Your task to perform on an android device: see tabs open on other devices in the chrome app Image 0: 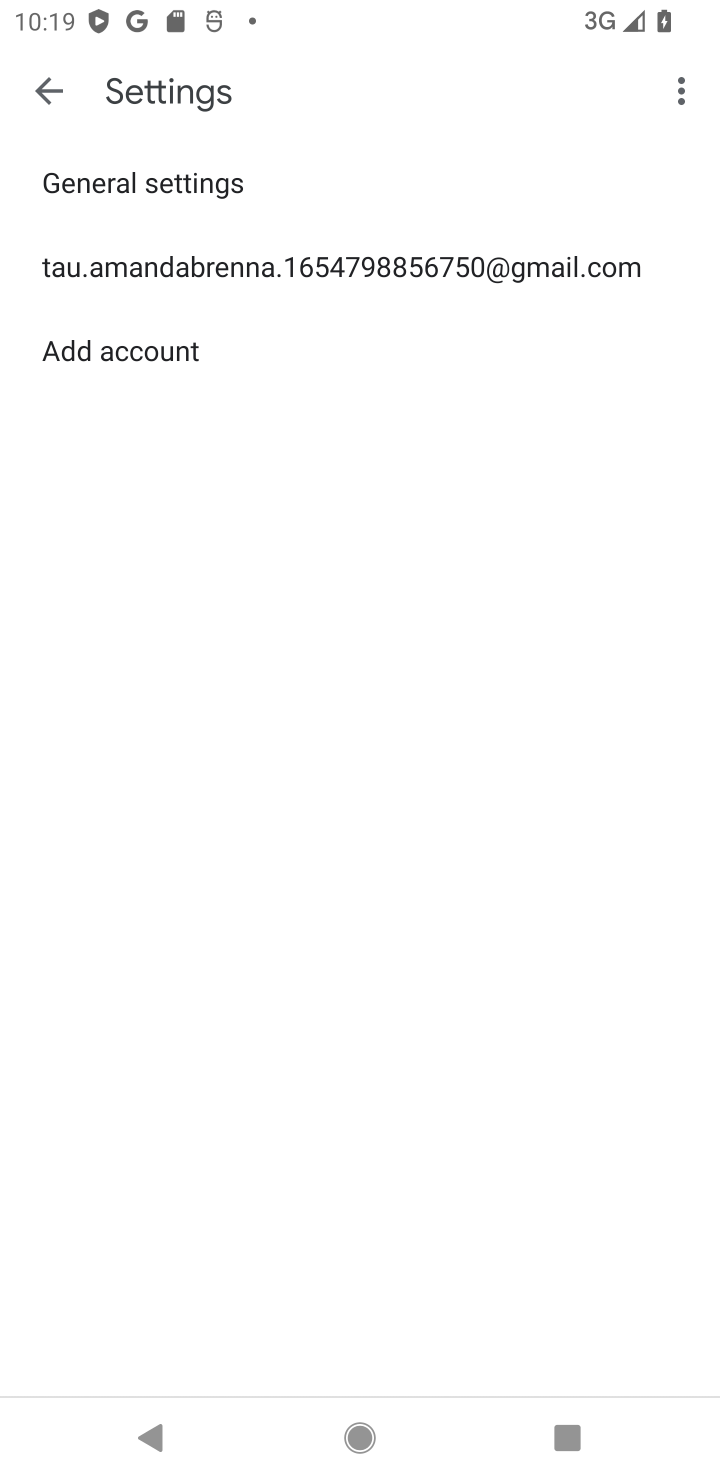
Step 0: press home button
Your task to perform on an android device: see tabs open on other devices in the chrome app Image 1: 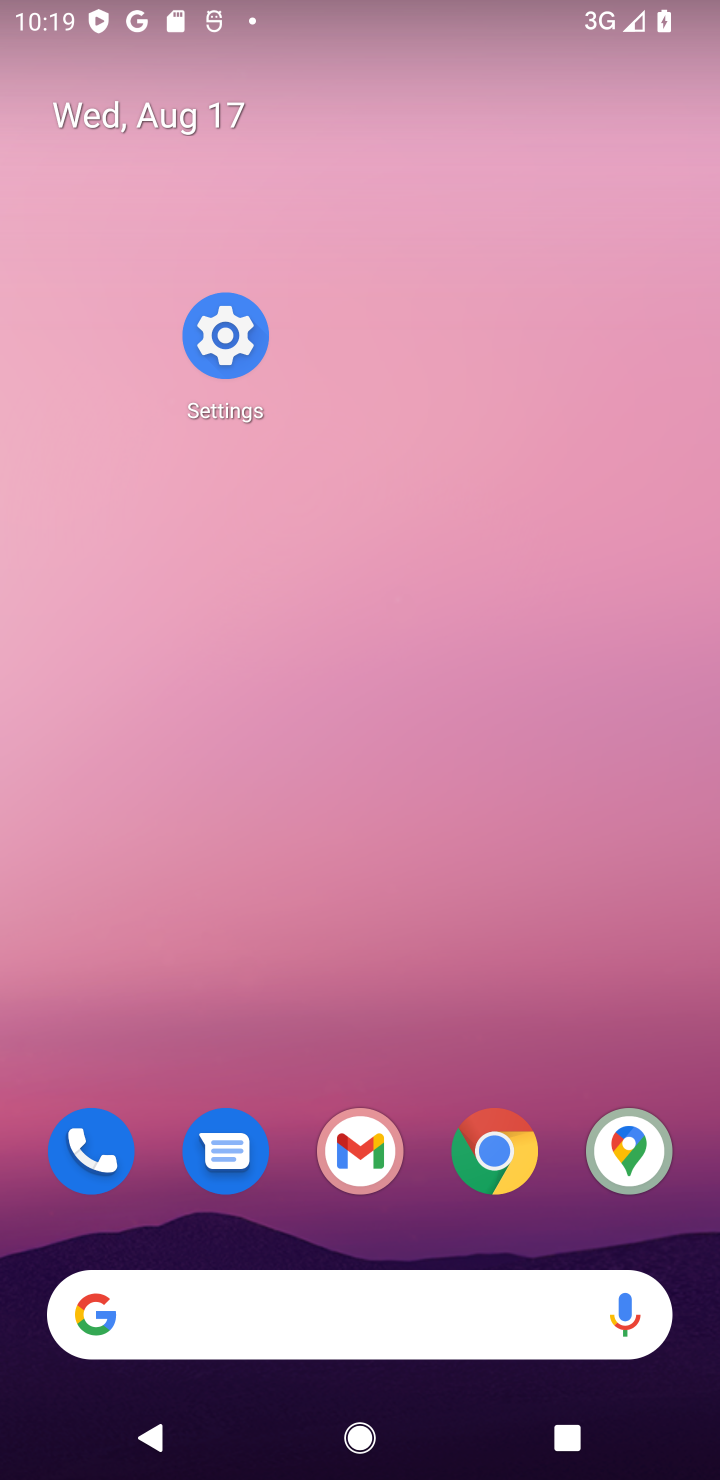
Step 1: click (498, 1135)
Your task to perform on an android device: see tabs open on other devices in the chrome app Image 2: 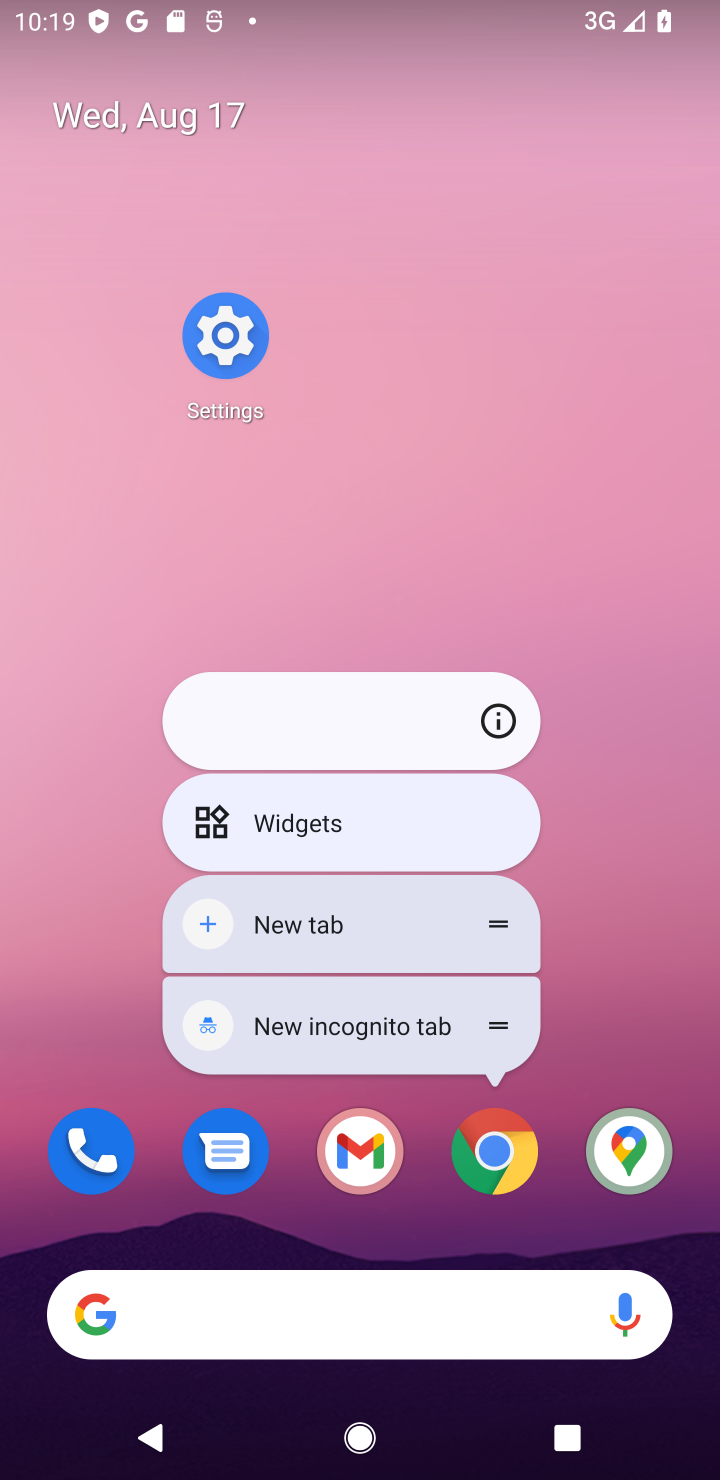
Step 2: click (489, 1145)
Your task to perform on an android device: see tabs open on other devices in the chrome app Image 3: 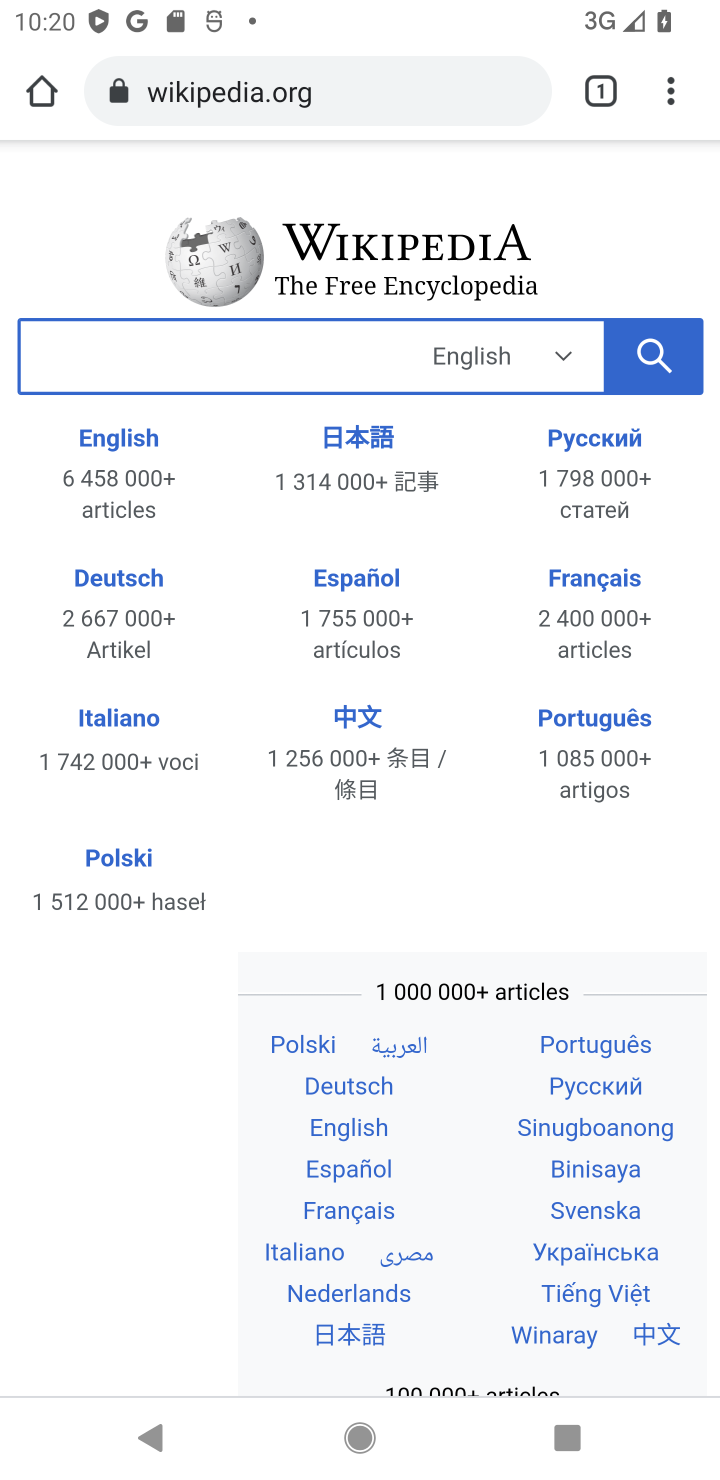
Step 3: click (489, 1130)
Your task to perform on an android device: see tabs open on other devices in the chrome app Image 4: 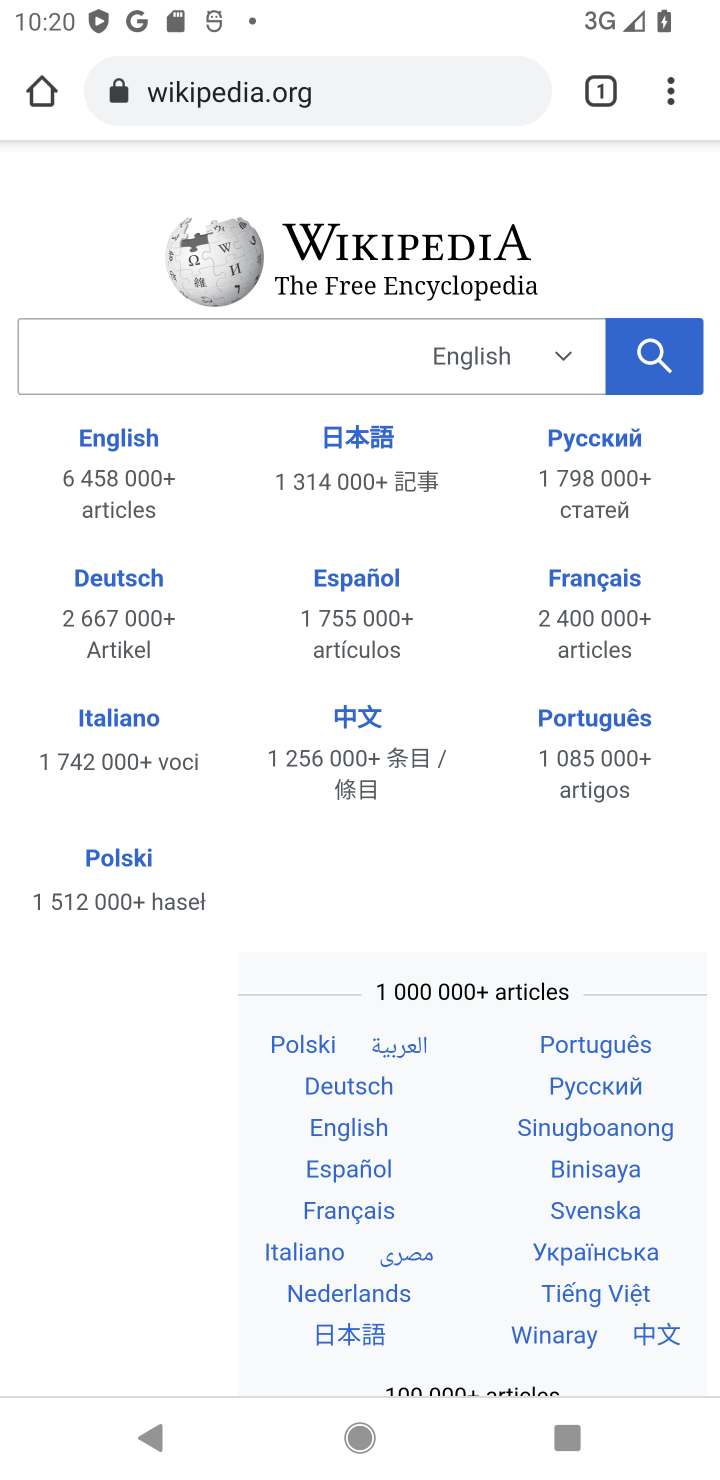
Step 4: click (672, 96)
Your task to perform on an android device: see tabs open on other devices in the chrome app Image 5: 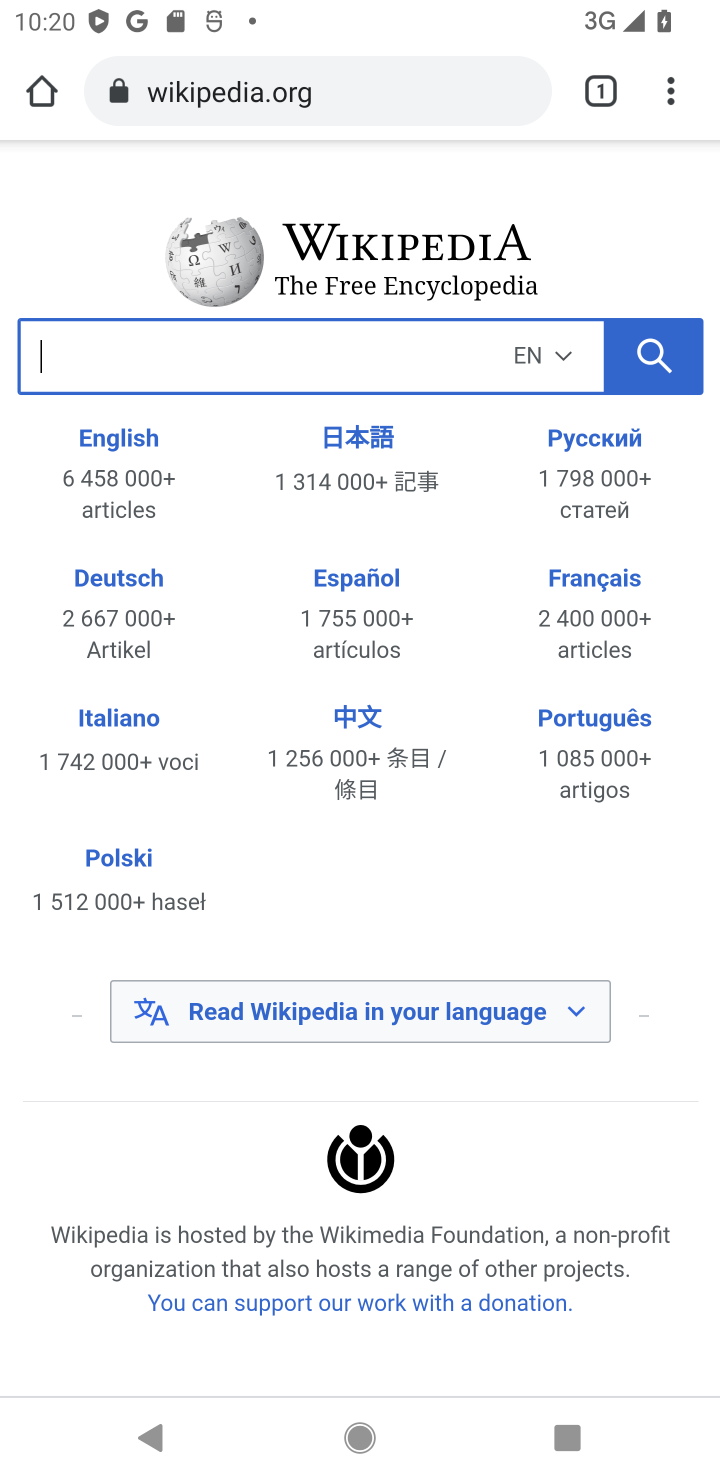
Step 5: click (658, 91)
Your task to perform on an android device: see tabs open on other devices in the chrome app Image 6: 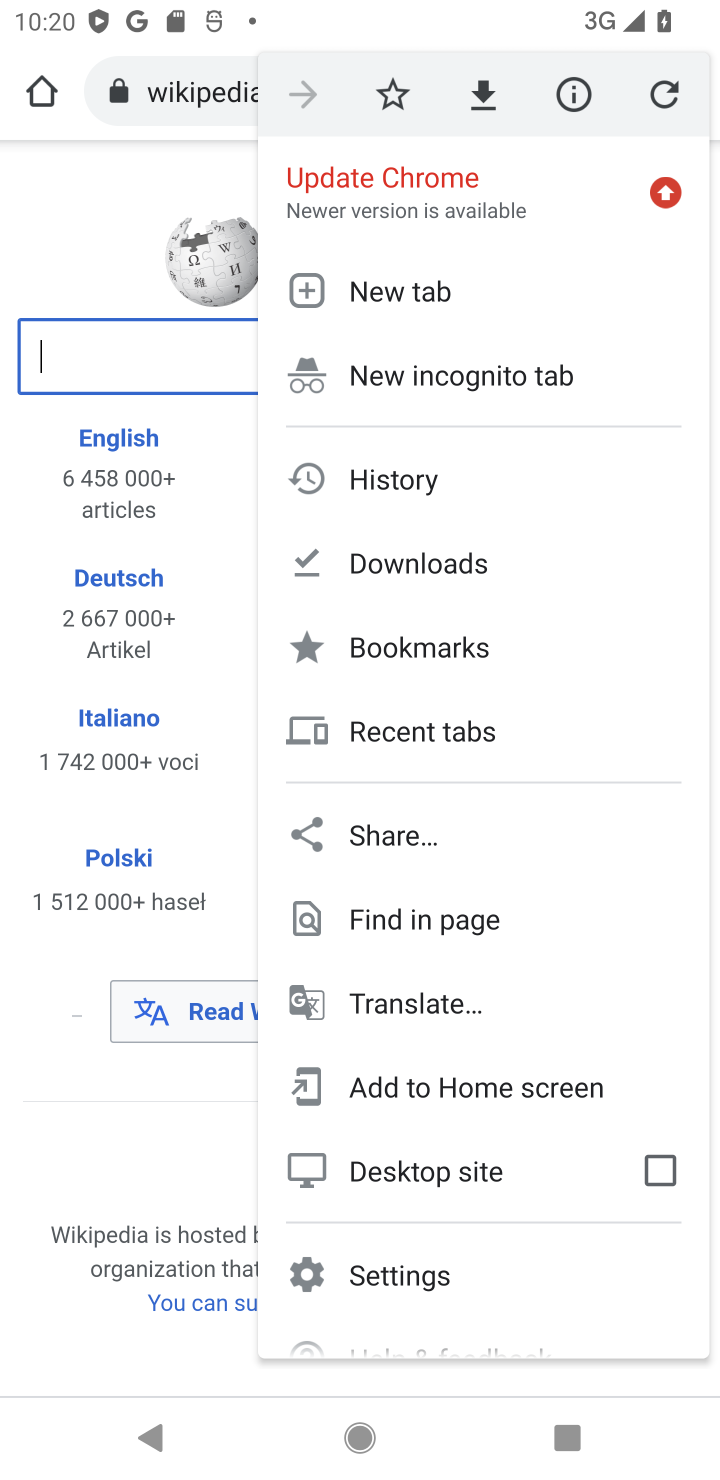
Step 6: click (346, 721)
Your task to perform on an android device: see tabs open on other devices in the chrome app Image 7: 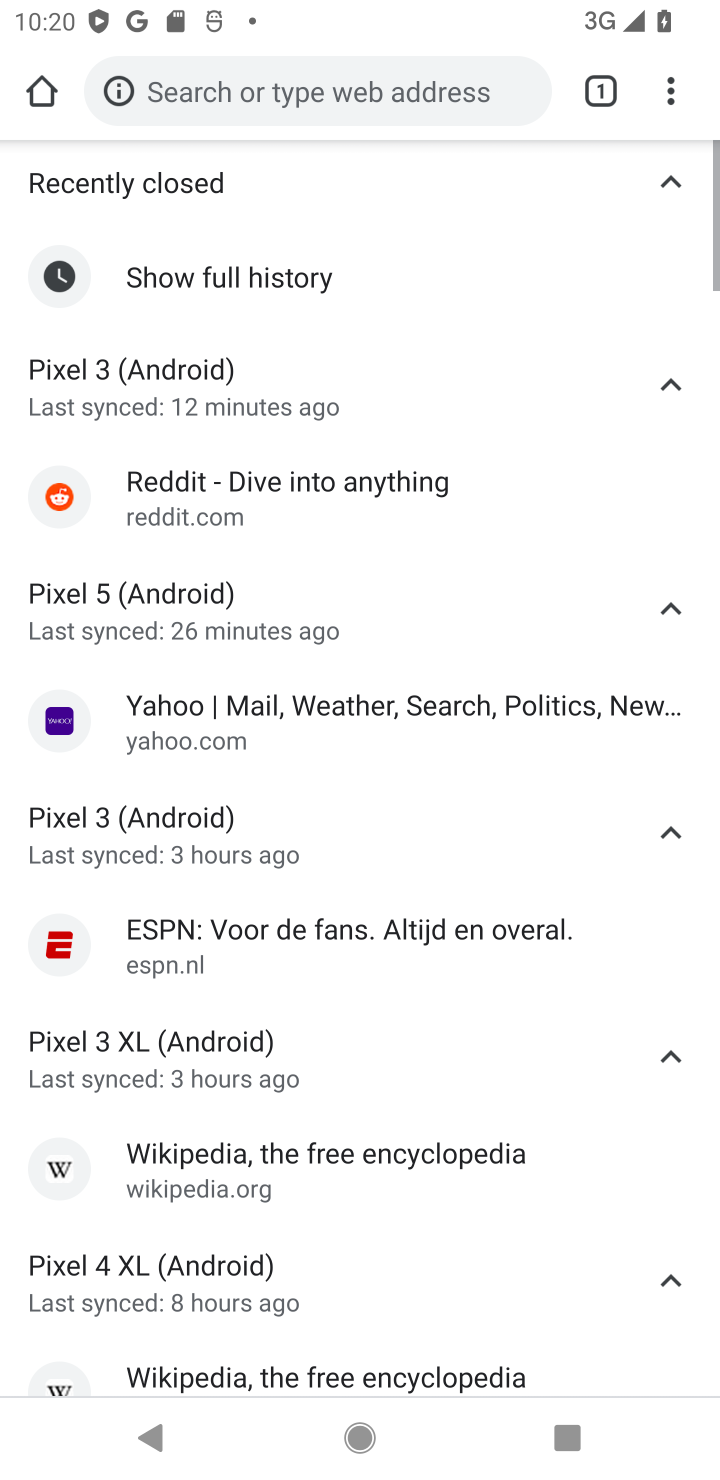
Step 7: task complete